Your task to perform on an android device: Open Android settings Image 0: 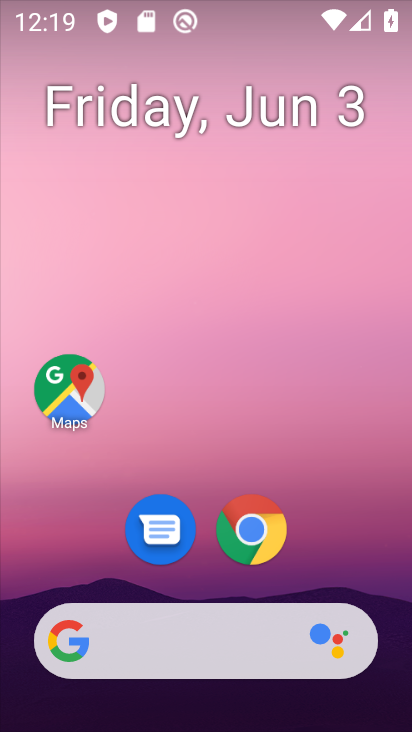
Step 0: drag from (222, 562) to (207, 0)
Your task to perform on an android device: Open Android settings Image 1: 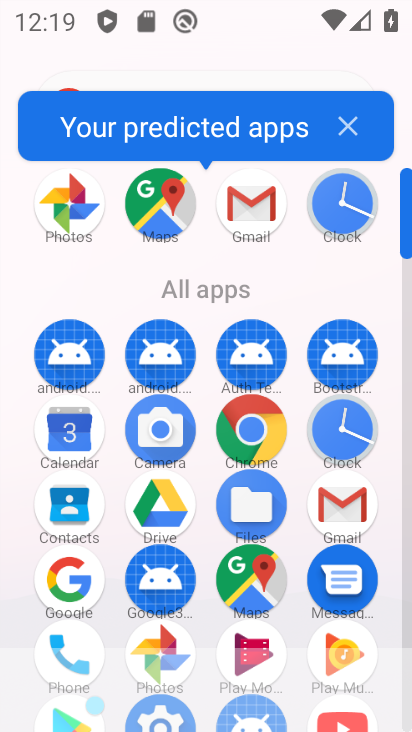
Step 1: drag from (112, 562) to (127, 232)
Your task to perform on an android device: Open Android settings Image 2: 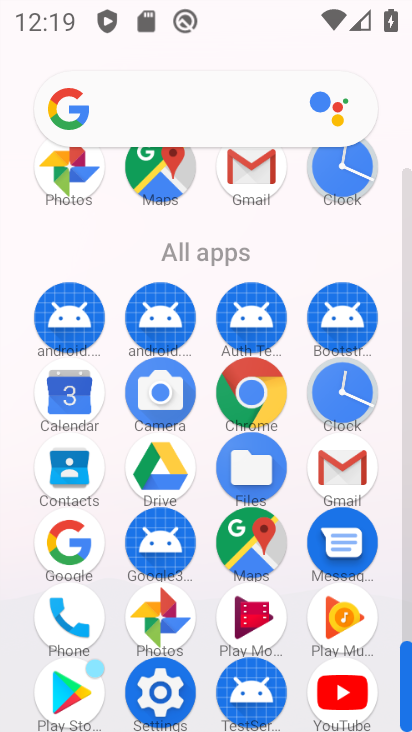
Step 2: click (176, 683)
Your task to perform on an android device: Open Android settings Image 3: 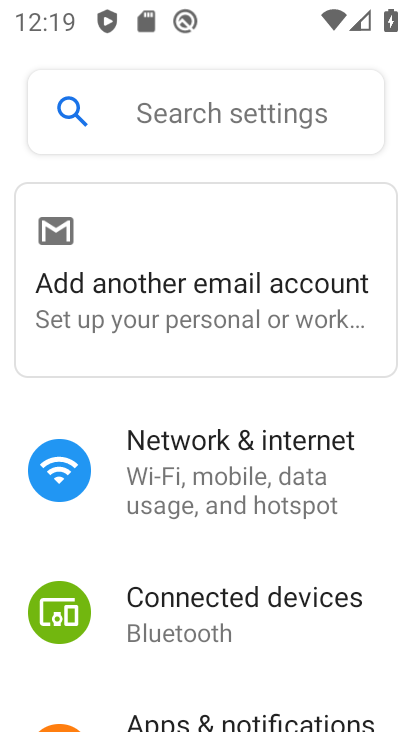
Step 3: drag from (198, 701) to (197, 168)
Your task to perform on an android device: Open Android settings Image 4: 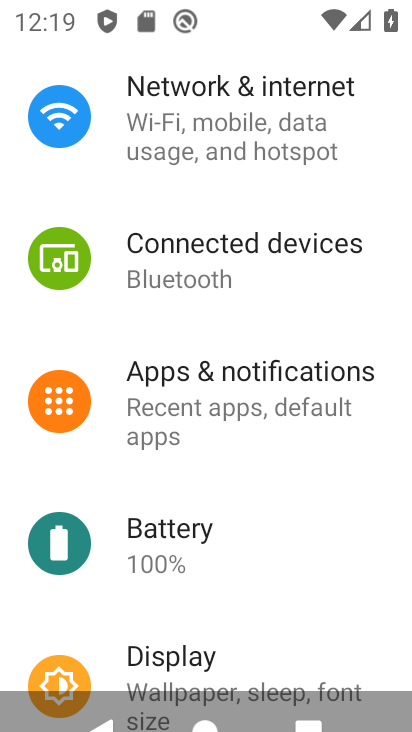
Step 4: drag from (255, 504) to (264, 281)
Your task to perform on an android device: Open Android settings Image 5: 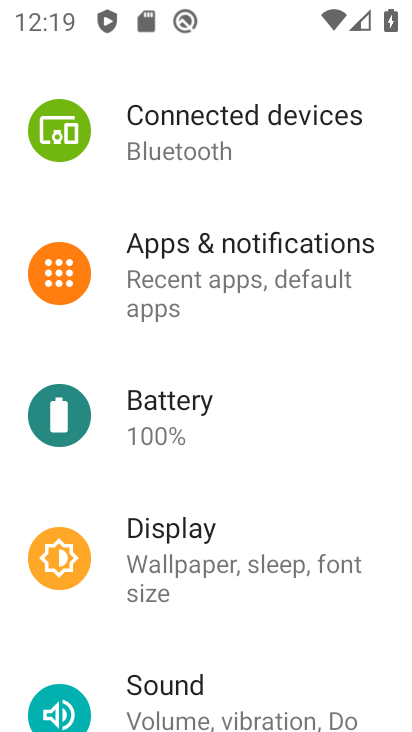
Step 5: drag from (213, 598) to (227, 217)
Your task to perform on an android device: Open Android settings Image 6: 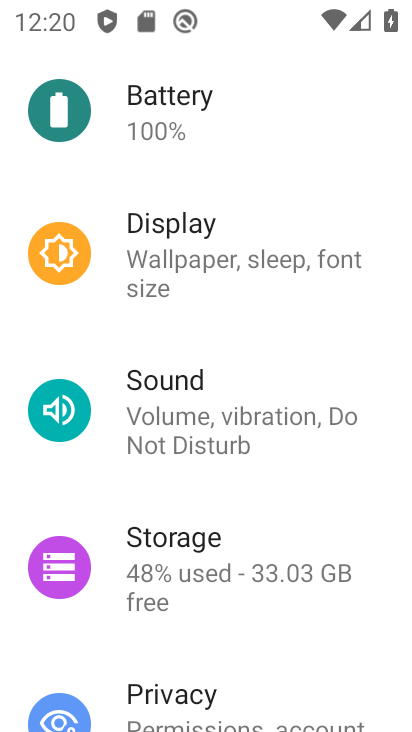
Step 6: drag from (172, 633) to (176, 197)
Your task to perform on an android device: Open Android settings Image 7: 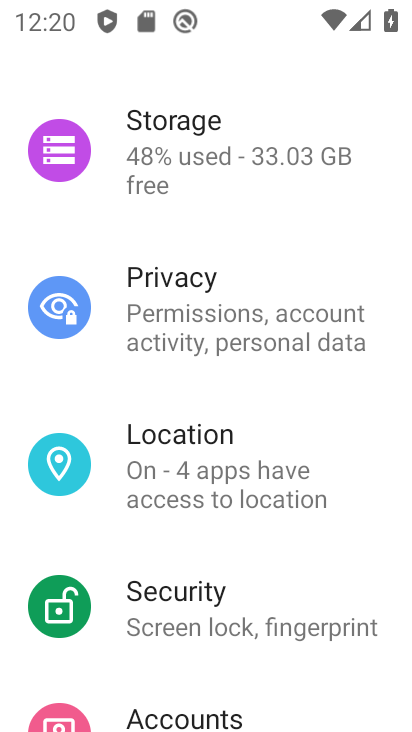
Step 7: drag from (192, 543) to (216, 121)
Your task to perform on an android device: Open Android settings Image 8: 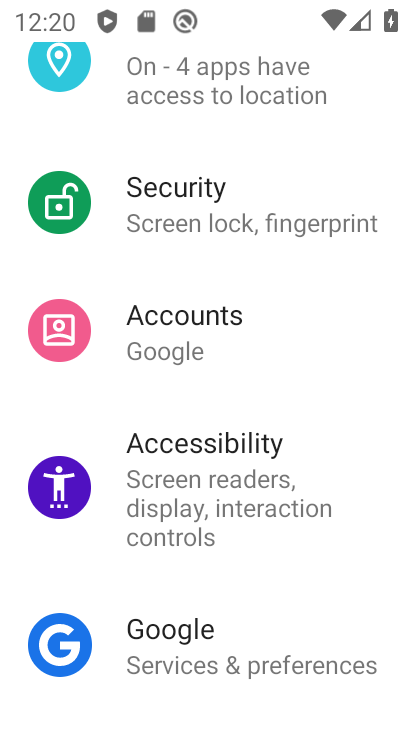
Step 8: drag from (181, 589) to (170, 250)
Your task to perform on an android device: Open Android settings Image 9: 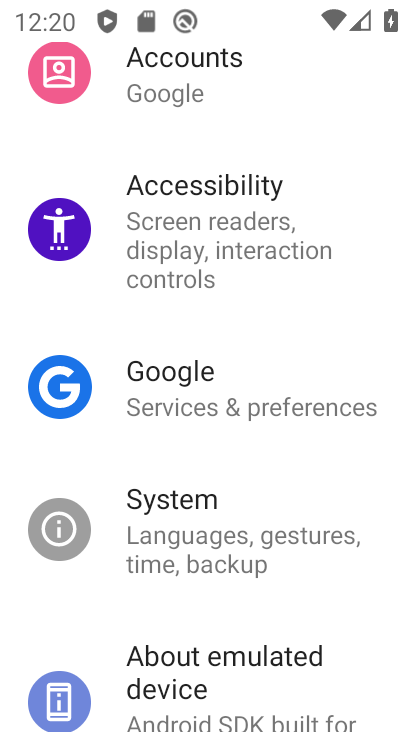
Step 9: click (165, 678)
Your task to perform on an android device: Open Android settings Image 10: 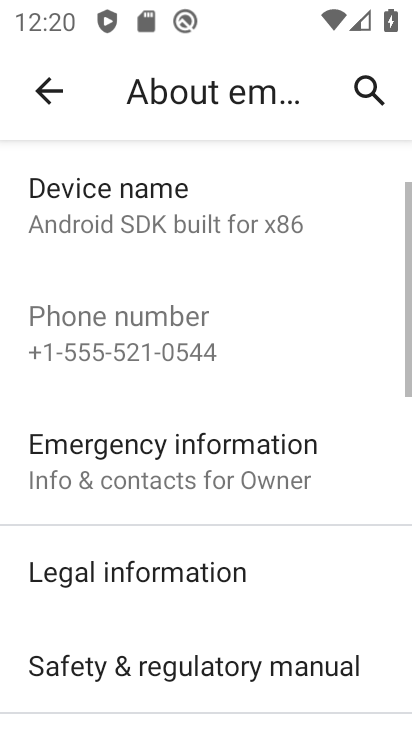
Step 10: drag from (170, 654) to (184, 358)
Your task to perform on an android device: Open Android settings Image 11: 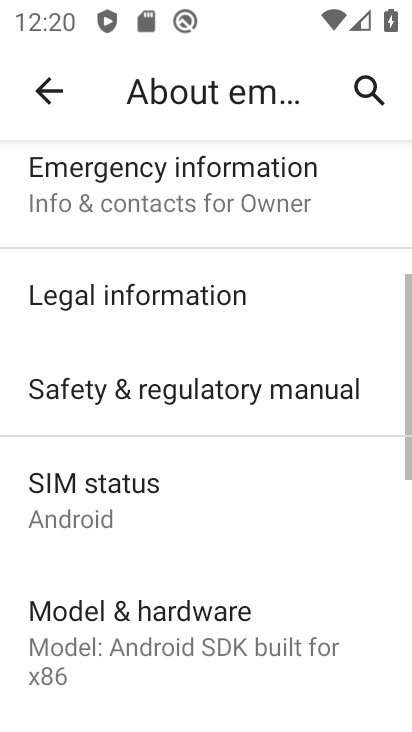
Step 11: drag from (158, 511) to (157, 344)
Your task to perform on an android device: Open Android settings Image 12: 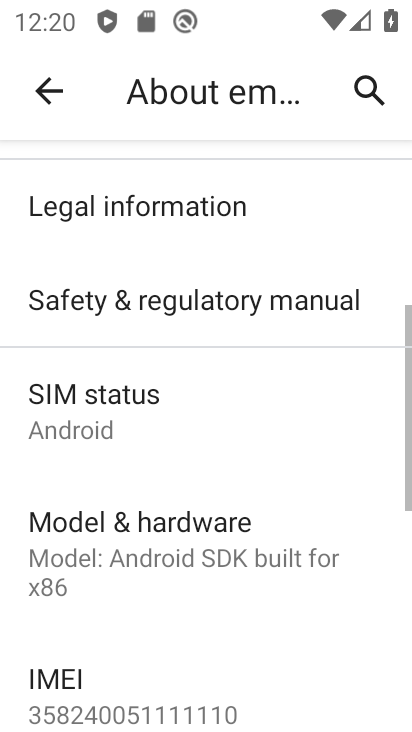
Step 12: drag from (147, 671) to (160, 396)
Your task to perform on an android device: Open Android settings Image 13: 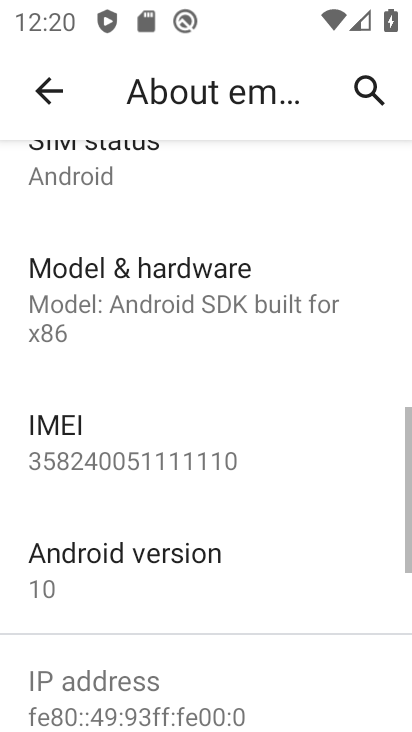
Step 13: click (125, 616)
Your task to perform on an android device: Open Android settings Image 14: 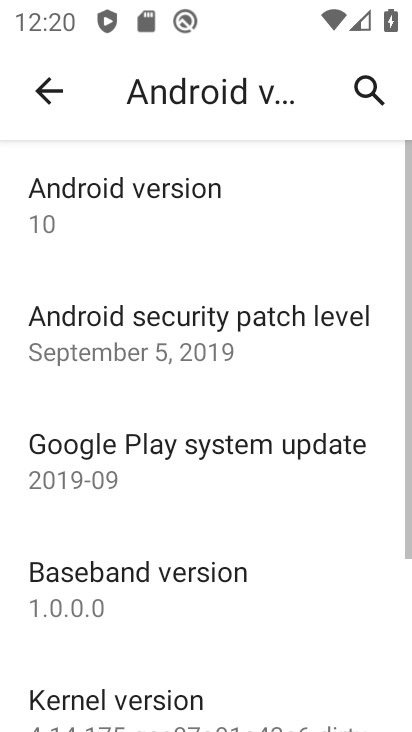
Step 14: task complete